Your task to perform on an android device: Open calendar and show me the second week of next month Image 0: 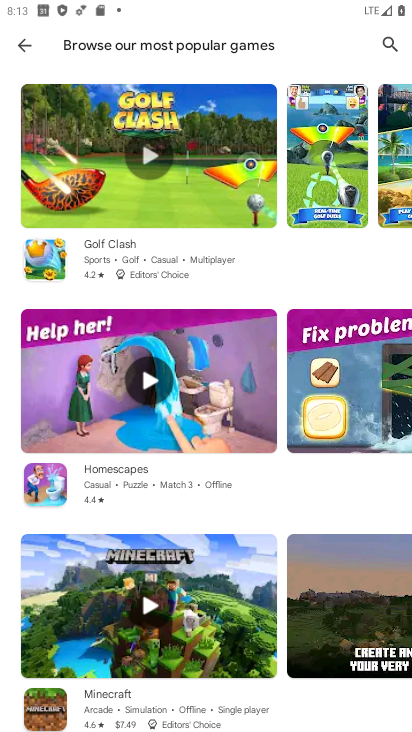
Step 0: press home button
Your task to perform on an android device: Open calendar and show me the second week of next month Image 1: 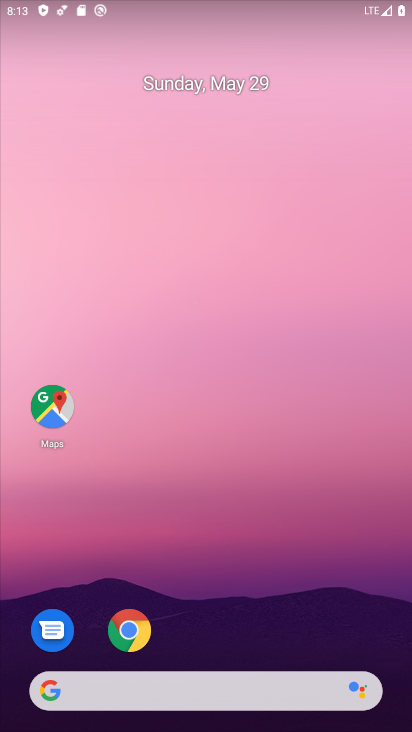
Step 1: drag from (211, 659) to (185, 74)
Your task to perform on an android device: Open calendar and show me the second week of next month Image 2: 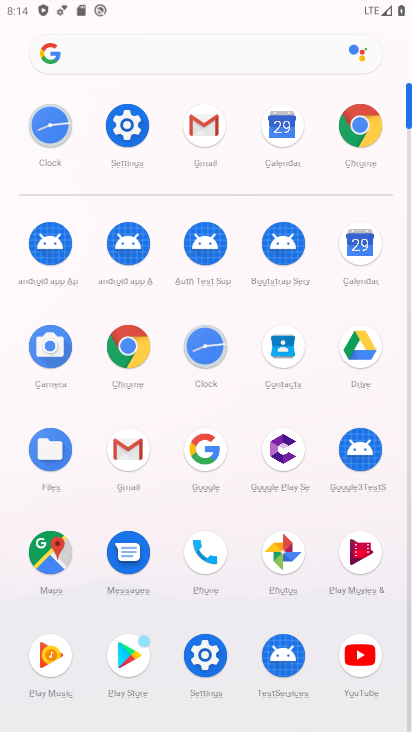
Step 2: click (363, 240)
Your task to perform on an android device: Open calendar and show me the second week of next month Image 3: 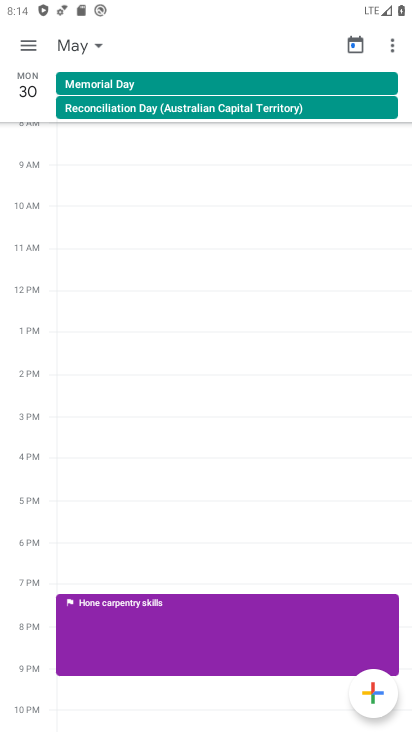
Step 3: click (30, 49)
Your task to perform on an android device: Open calendar and show me the second week of next month Image 4: 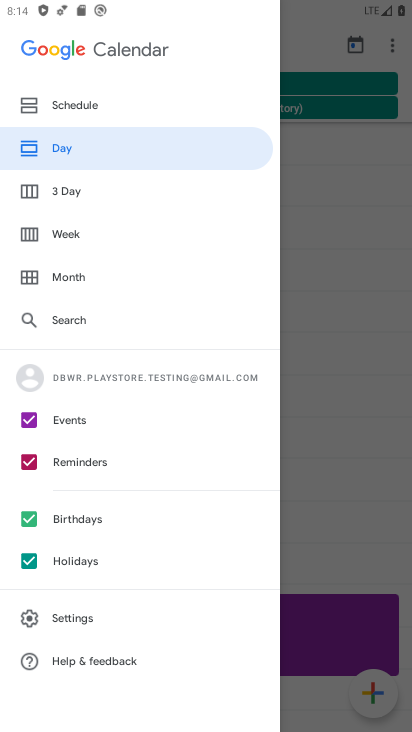
Step 4: click (80, 233)
Your task to perform on an android device: Open calendar and show me the second week of next month Image 5: 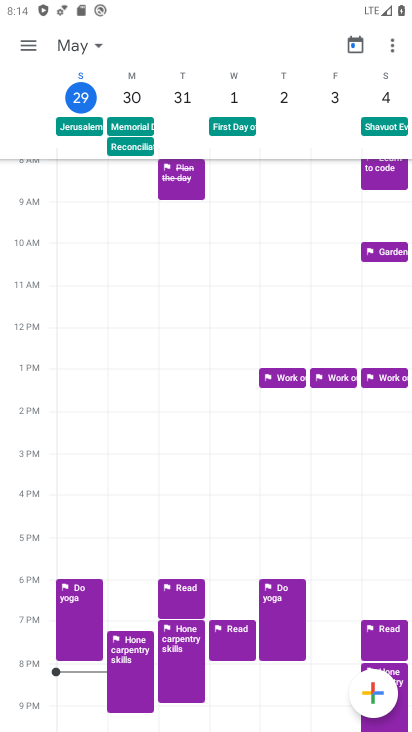
Step 5: task complete